Your task to perform on an android device: empty trash in the gmail app Image 0: 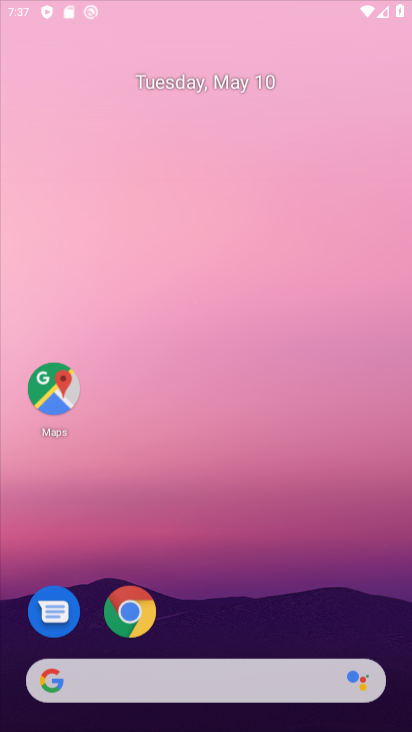
Step 0: click (275, 149)
Your task to perform on an android device: empty trash in the gmail app Image 1: 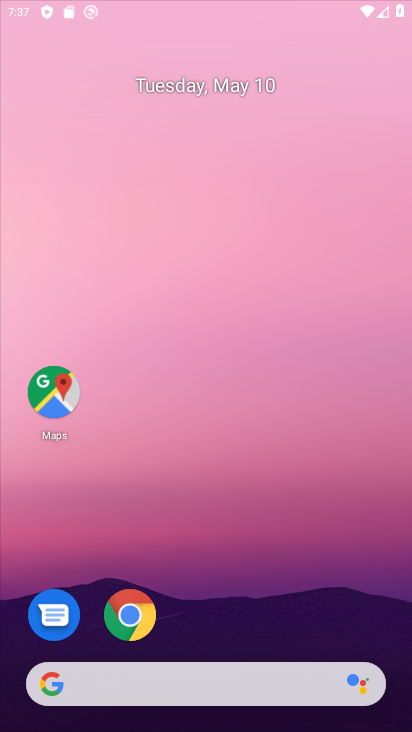
Step 1: click (149, 702)
Your task to perform on an android device: empty trash in the gmail app Image 2: 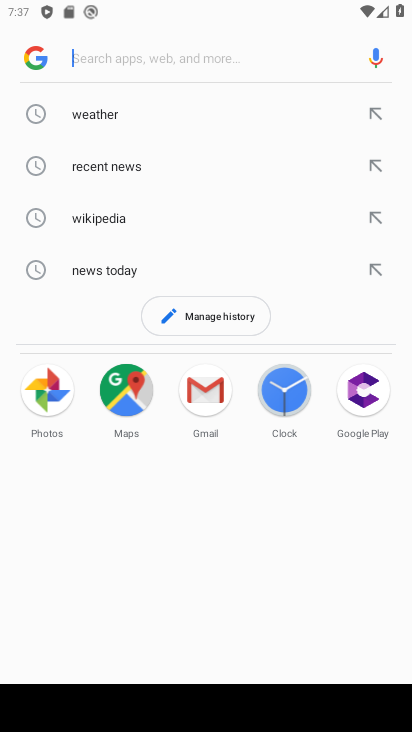
Step 2: press home button
Your task to perform on an android device: empty trash in the gmail app Image 3: 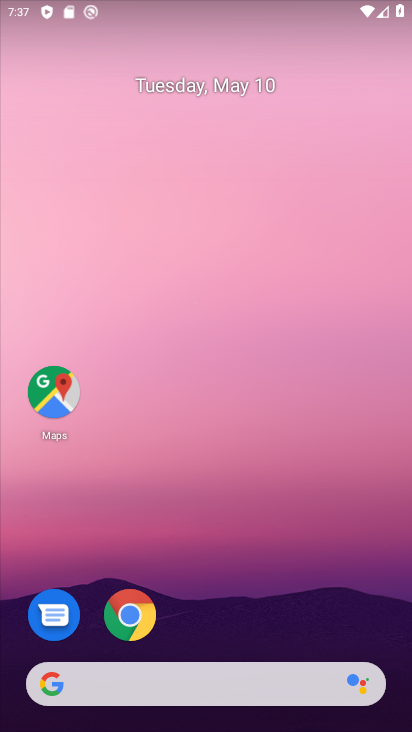
Step 3: drag from (215, 566) to (248, 81)
Your task to perform on an android device: empty trash in the gmail app Image 4: 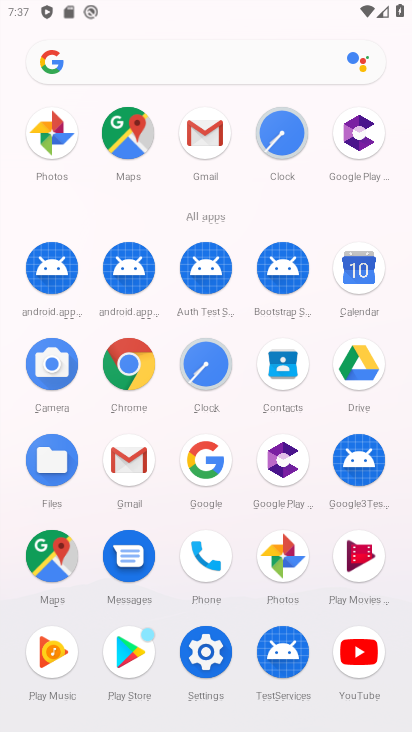
Step 4: click (140, 456)
Your task to perform on an android device: empty trash in the gmail app Image 5: 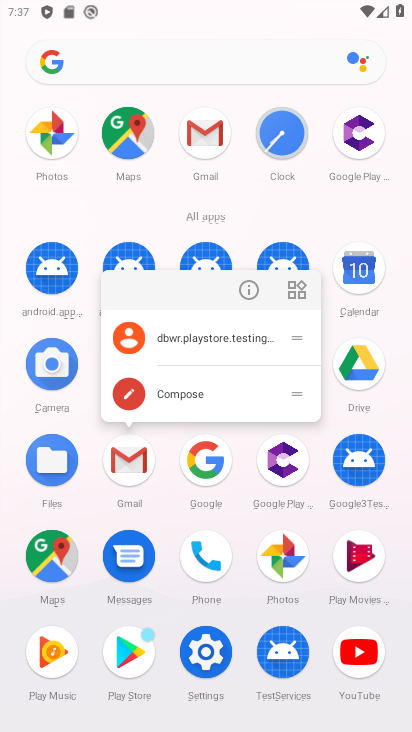
Step 5: click (247, 281)
Your task to perform on an android device: empty trash in the gmail app Image 6: 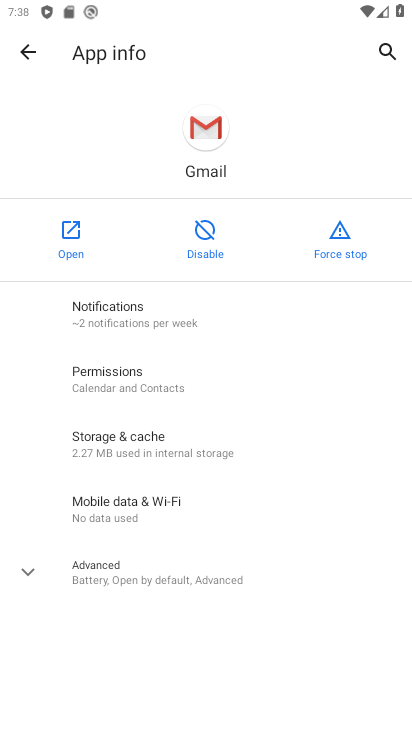
Step 6: click (83, 247)
Your task to perform on an android device: empty trash in the gmail app Image 7: 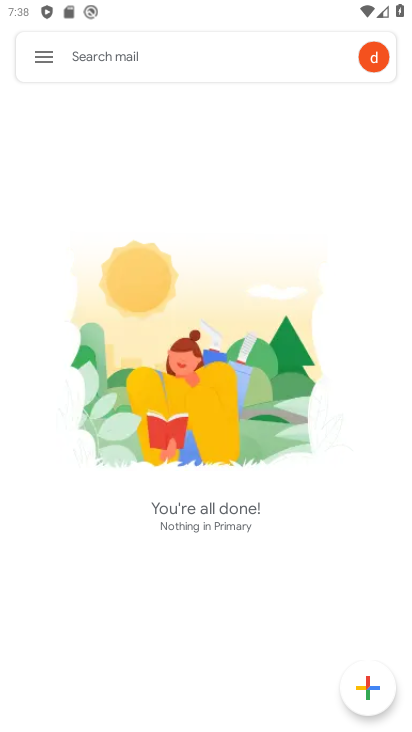
Step 7: drag from (235, 527) to (252, 119)
Your task to perform on an android device: empty trash in the gmail app Image 8: 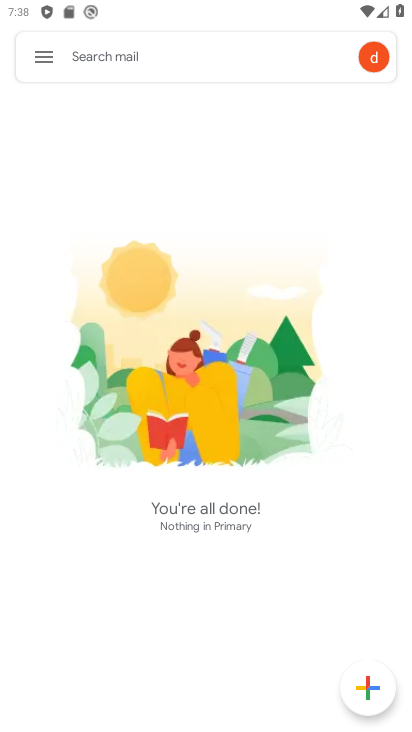
Step 8: click (46, 51)
Your task to perform on an android device: empty trash in the gmail app Image 9: 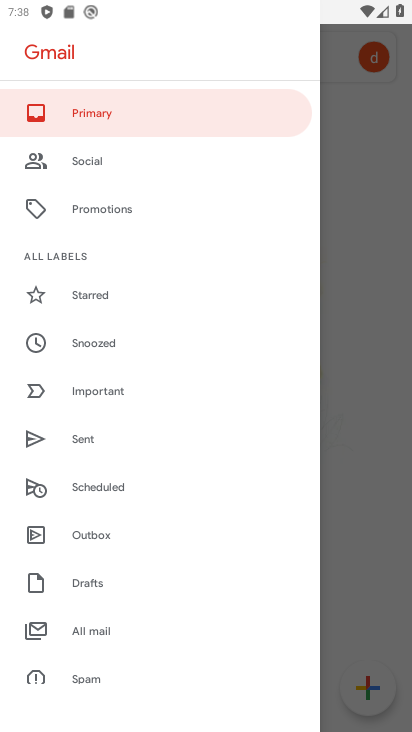
Step 9: drag from (115, 593) to (181, 192)
Your task to perform on an android device: empty trash in the gmail app Image 10: 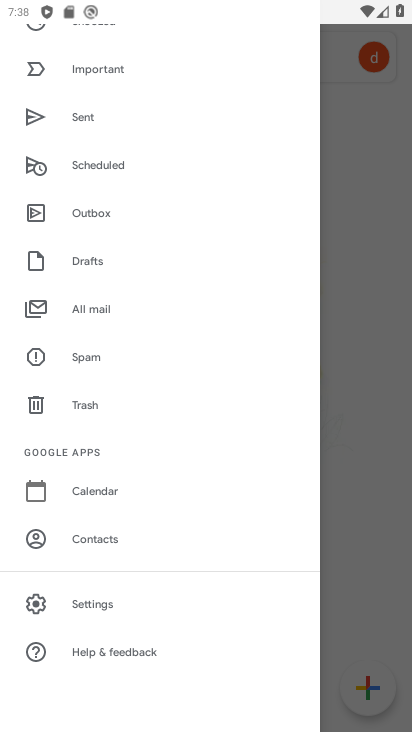
Step 10: drag from (119, 169) to (201, 621)
Your task to perform on an android device: empty trash in the gmail app Image 11: 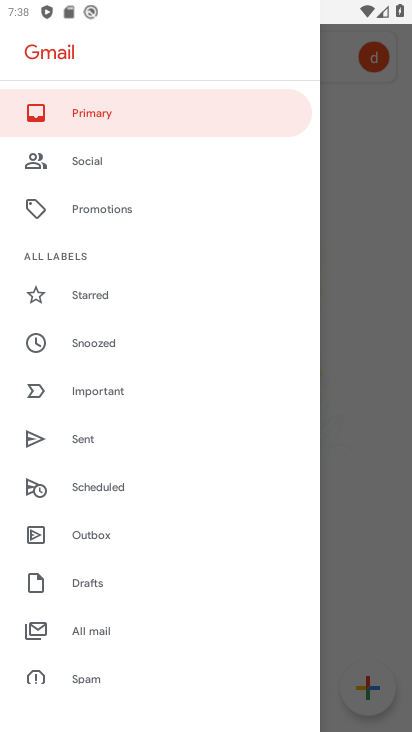
Step 11: drag from (114, 667) to (142, 358)
Your task to perform on an android device: empty trash in the gmail app Image 12: 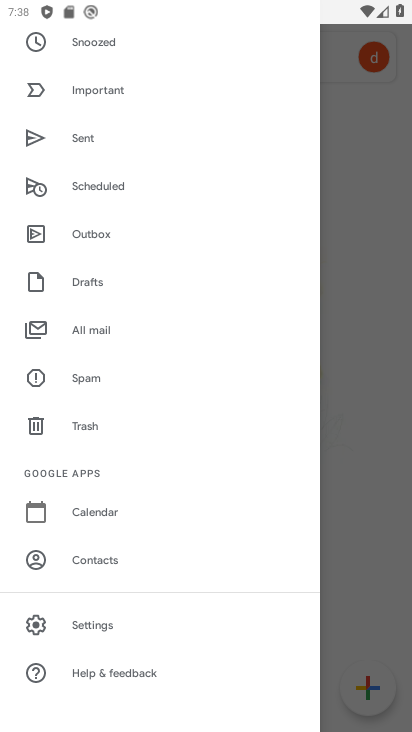
Step 12: click (84, 429)
Your task to perform on an android device: empty trash in the gmail app Image 13: 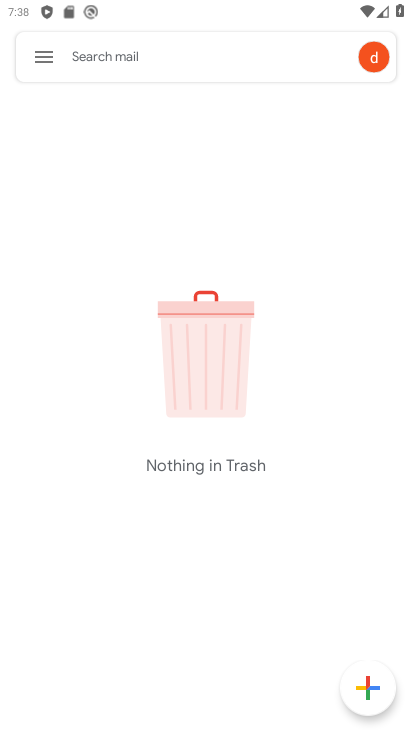
Step 13: task complete